Your task to perform on an android device: toggle data saver in the chrome app Image 0: 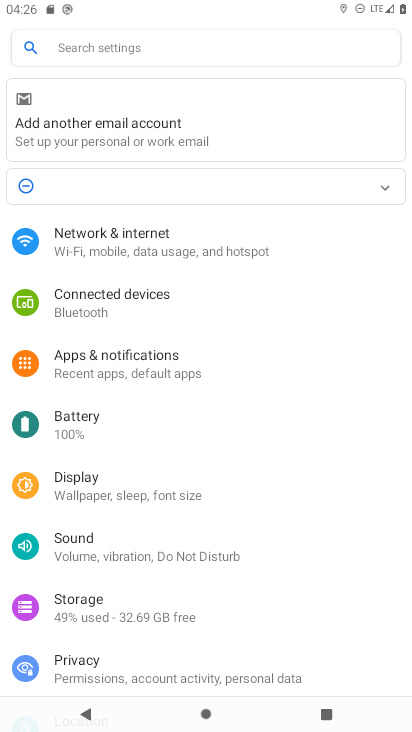
Step 0: drag from (318, 561) to (343, 251)
Your task to perform on an android device: toggle data saver in the chrome app Image 1: 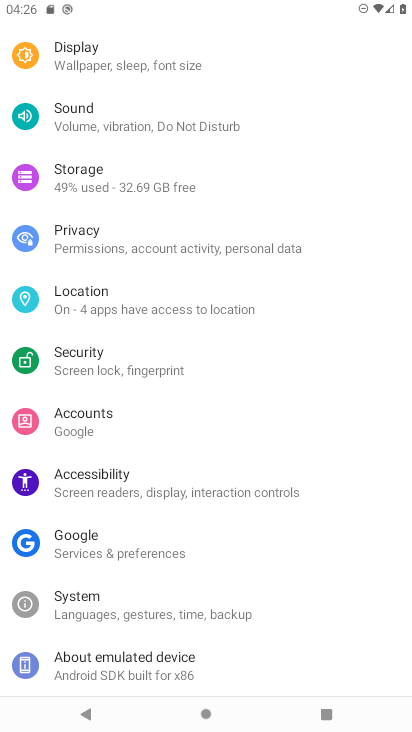
Step 1: click (181, 322)
Your task to perform on an android device: toggle data saver in the chrome app Image 2: 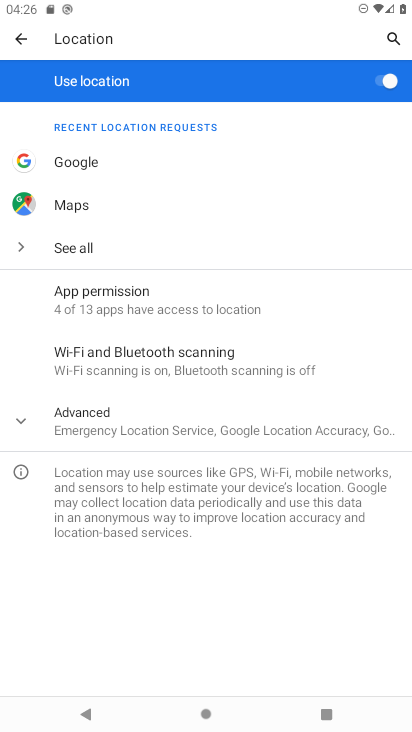
Step 2: press home button
Your task to perform on an android device: toggle data saver in the chrome app Image 3: 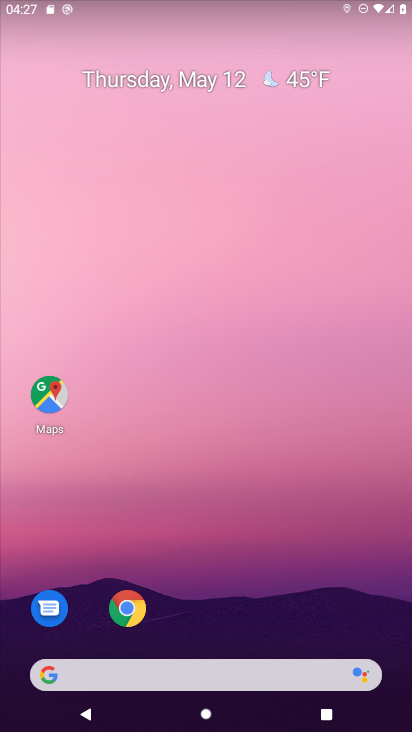
Step 3: click (146, 604)
Your task to perform on an android device: toggle data saver in the chrome app Image 4: 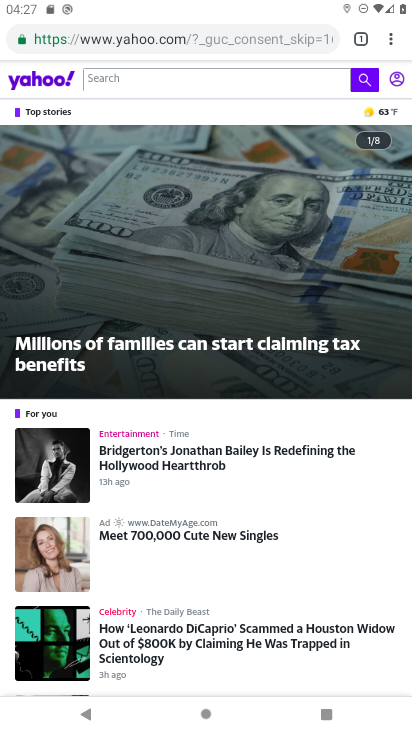
Step 4: click (389, 45)
Your task to perform on an android device: toggle data saver in the chrome app Image 5: 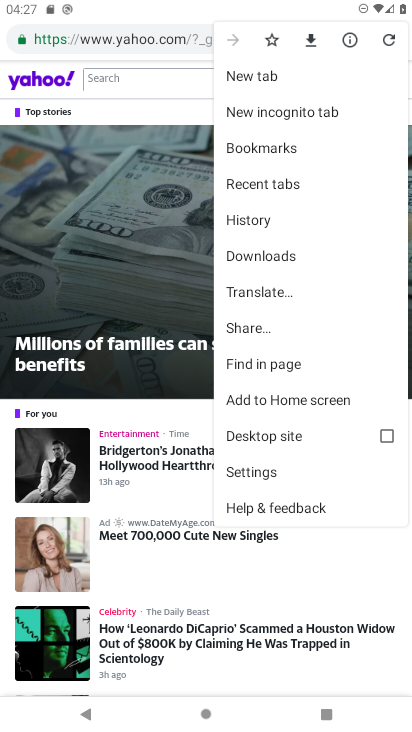
Step 5: click (264, 477)
Your task to perform on an android device: toggle data saver in the chrome app Image 6: 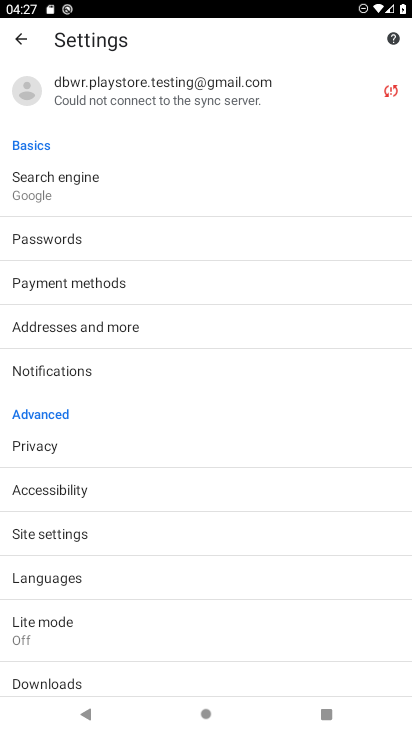
Step 6: click (113, 631)
Your task to perform on an android device: toggle data saver in the chrome app Image 7: 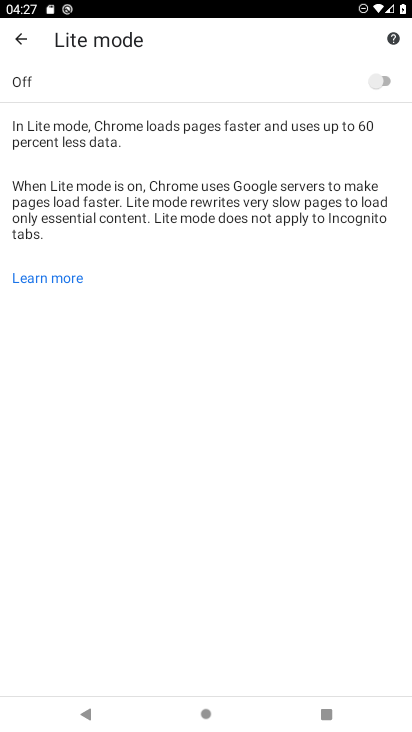
Step 7: click (366, 75)
Your task to perform on an android device: toggle data saver in the chrome app Image 8: 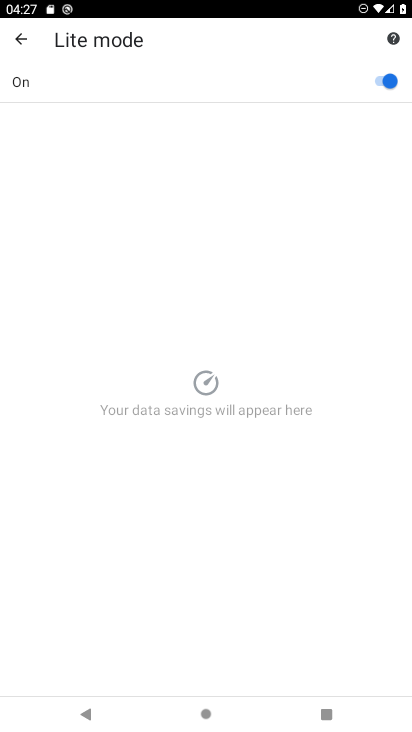
Step 8: task complete